Your task to perform on an android device: turn on wifi Image 0: 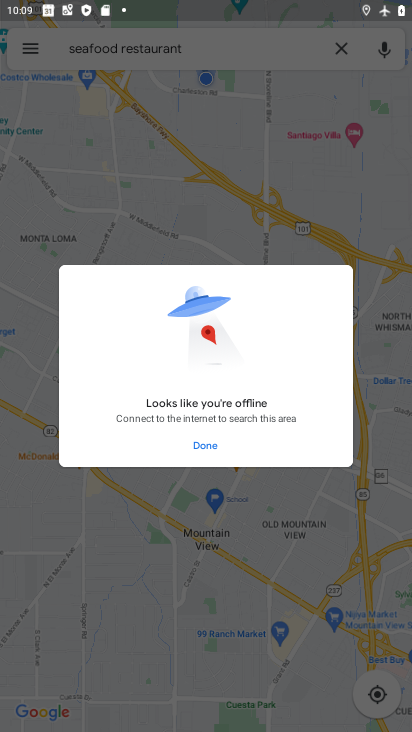
Step 0: click (207, 439)
Your task to perform on an android device: turn on wifi Image 1: 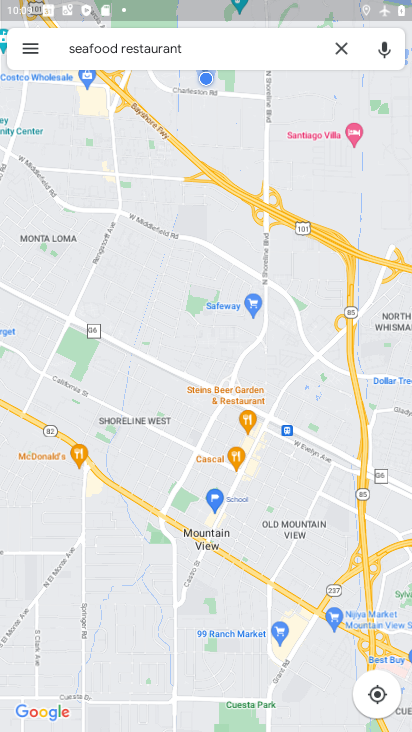
Step 1: press home button
Your task to perform on an android device: turn on wifi Image 2: 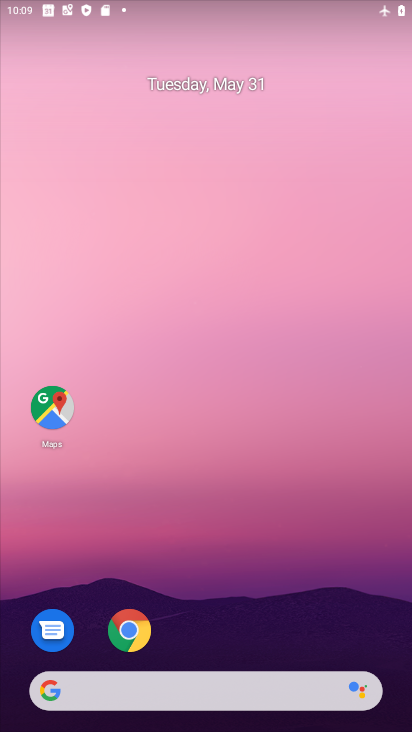
Step 2: drag from (239, 623) to (281, 188)
Your task to perform on an android device: turn on wifi Image 3: 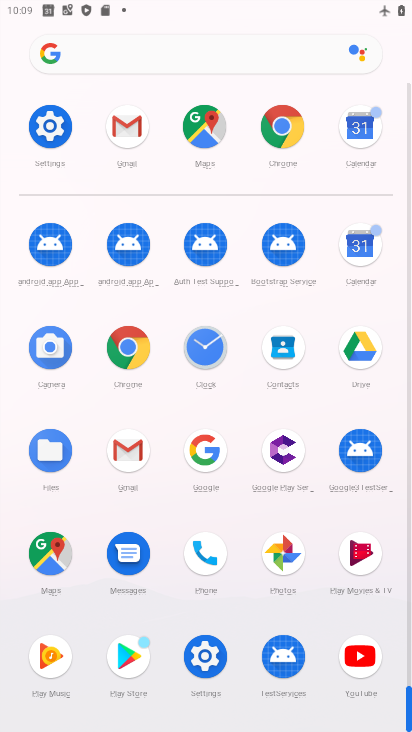
Step 3: click (41, 114)
Your task to perform on an android device: turn on wifi Image 4: 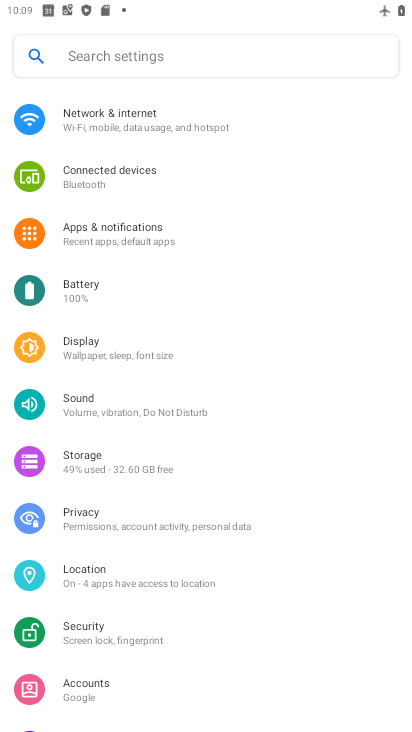
Step 4: click (147, 126)
Your task to perform on an android device: turn on wifi Image 5: 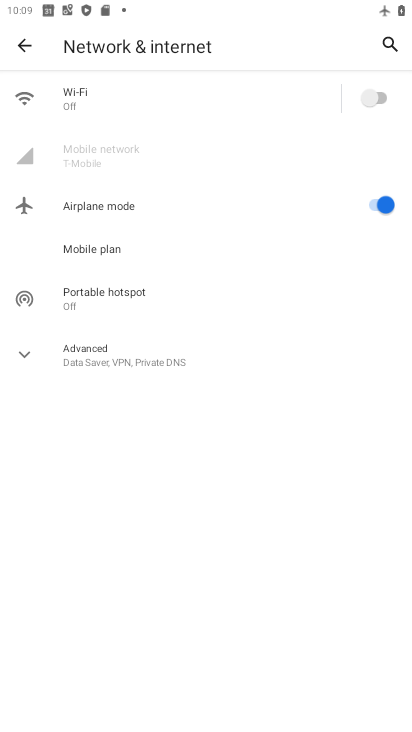
Step 5: click (373, 103)
Your task to perform on an android device: turn on wifi Image 6: 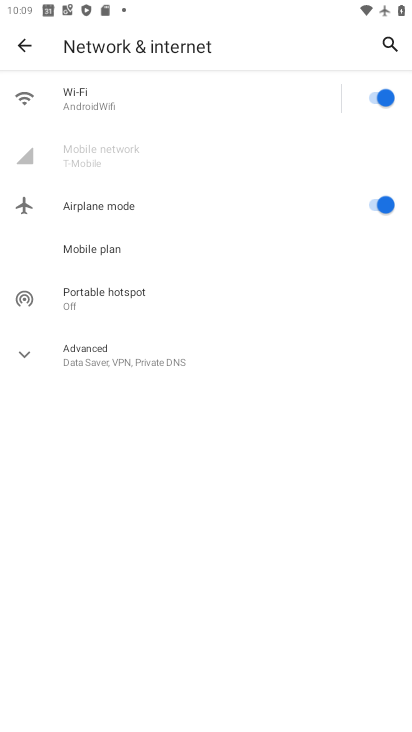
Step 6: task complete